Your task to perform on an android device: open app "TextNow: Call + Text Unlimited" (install if not already installed) and enter user name: "stoke@yahoo.com" and password: "prompted" Image 0: 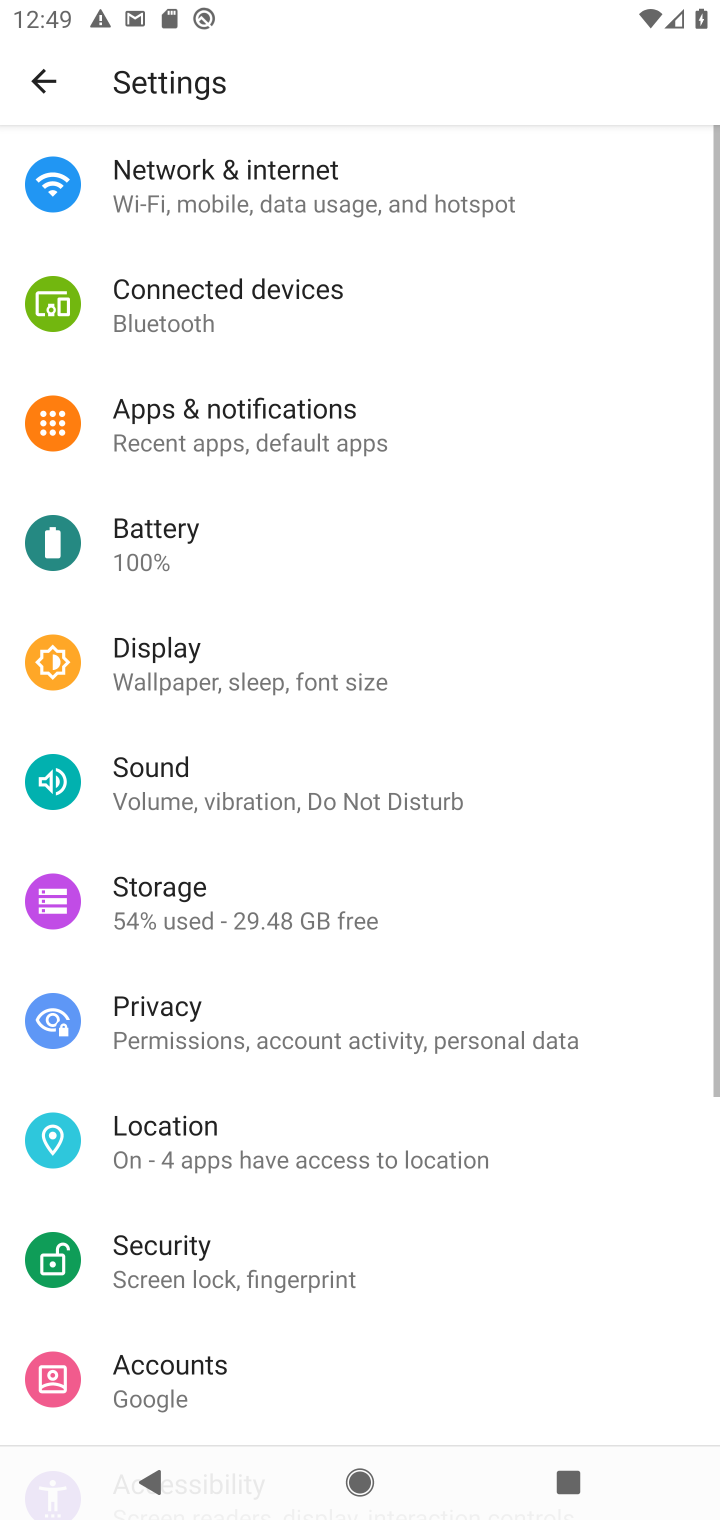
Step 0: press home button
Your task to perform on an android device: open app "TextNow: Call + Text Unlimited" (install if not already installed) and enter user name: "stoke@yahoo.com" and password: "prompted" Image 1: 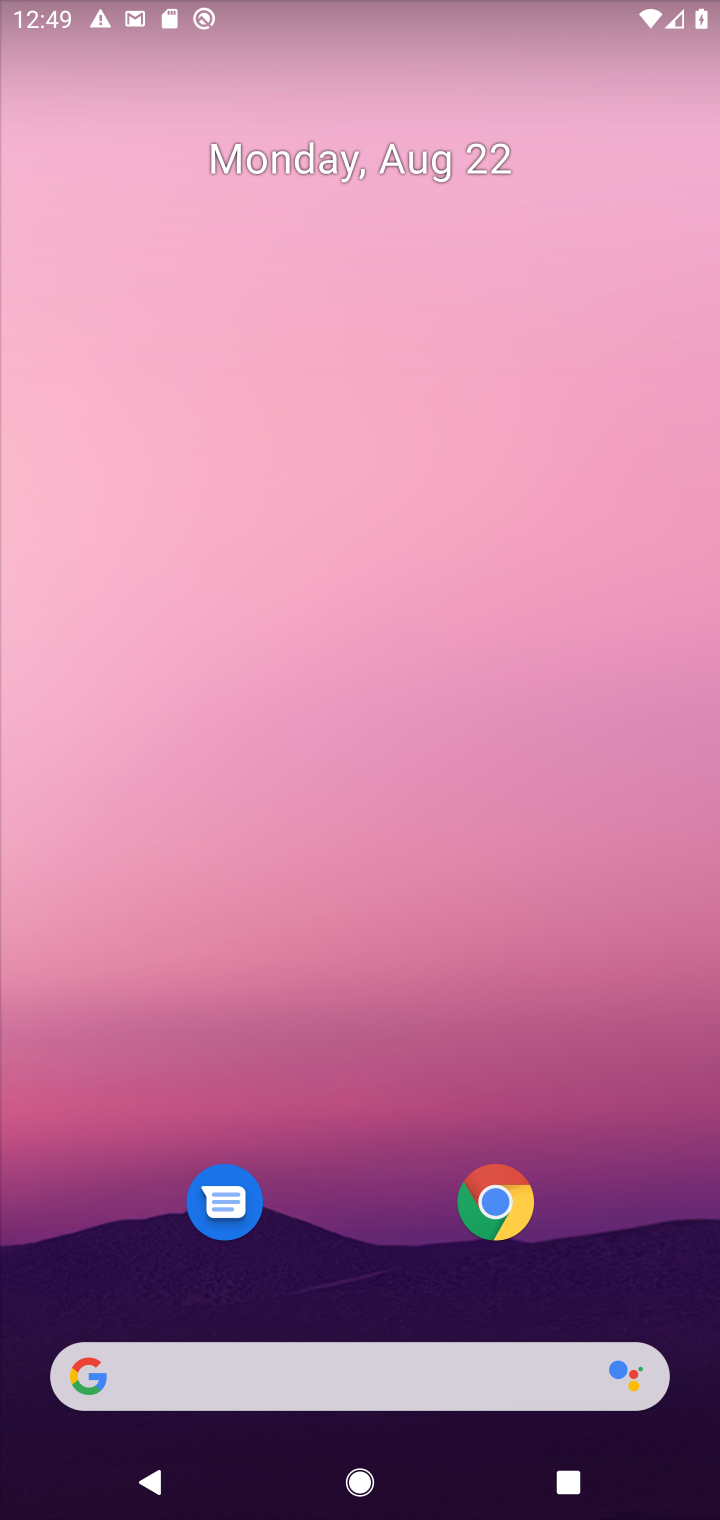
Step 1: drag from (366, 1188) to (385, 170)
Your task to perform on an android device: open app "TextNow: Call + Text Unlimited" (install if not already installed) and enter user name: "stoke@yahoo.com" and password: "prompted" Image 2: 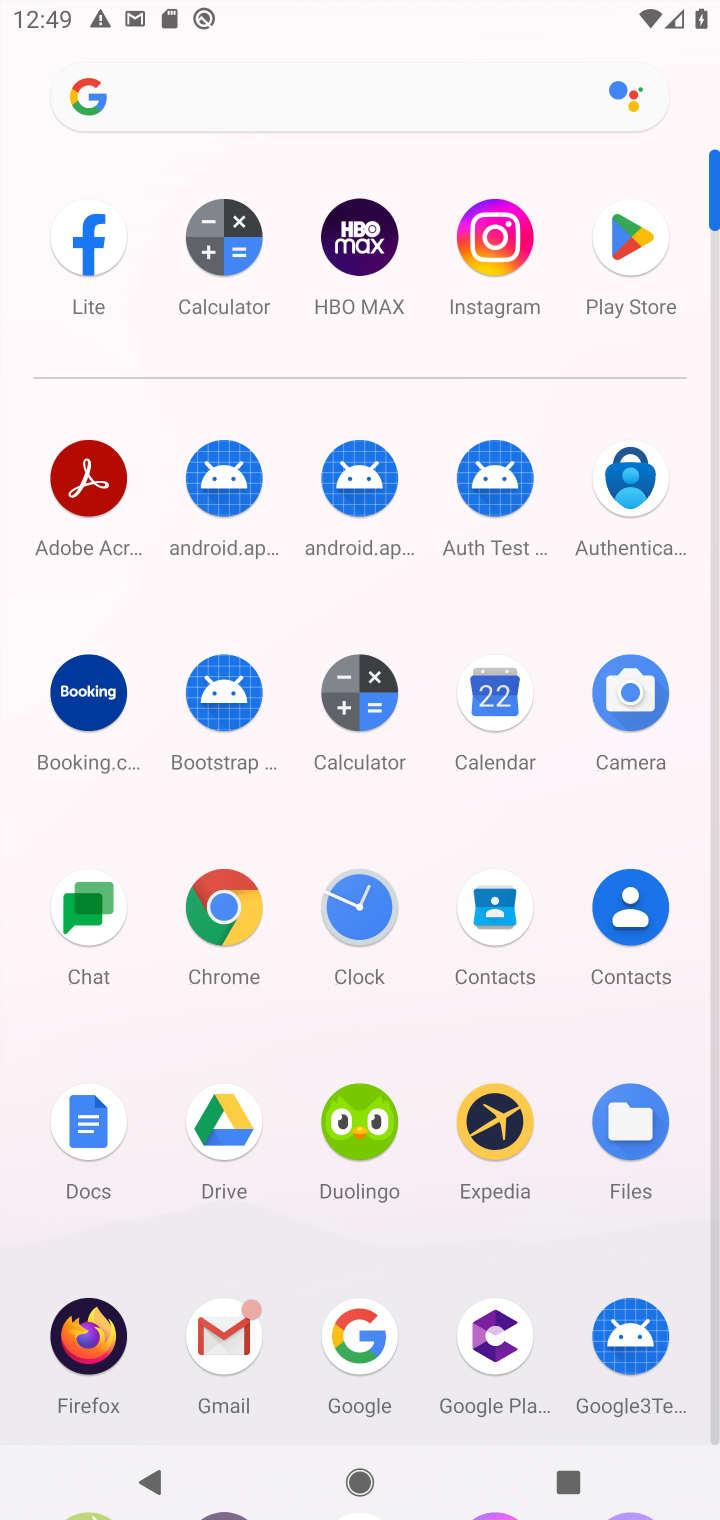
Step 2: click (638, 240)
Your task to perform on an android device: open app "TextNow: Call + Text Unlimited" (install if not already installed) and enter user name: "stoke@yahoo.com" and password: "prompted" Image 3: 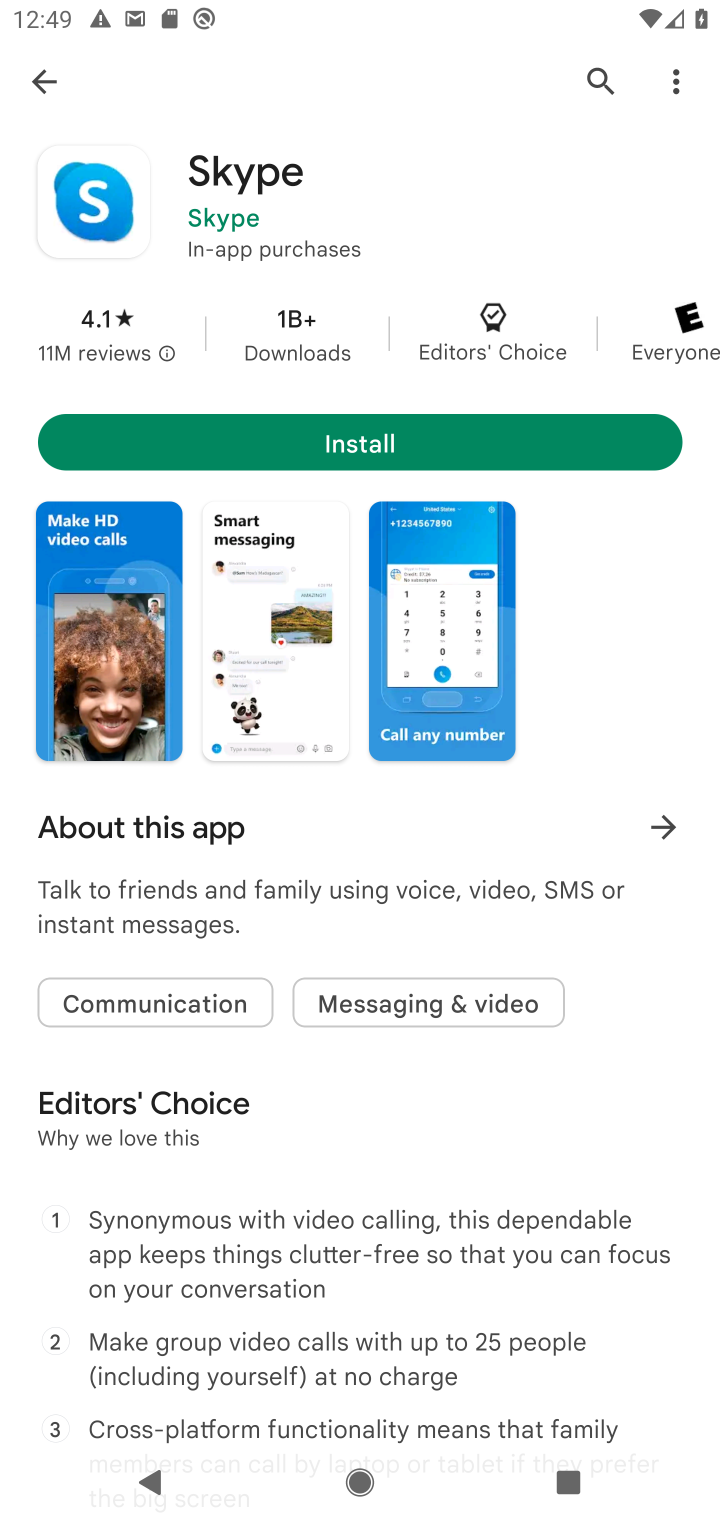
Step 3: click (593, 72)
Your task to perform on an android device: open app "TextNow: Call + Text Unlimited" (install if not already installed) and enter user name: "stoke@yahoo.com" and password: "prompted" Image 4: 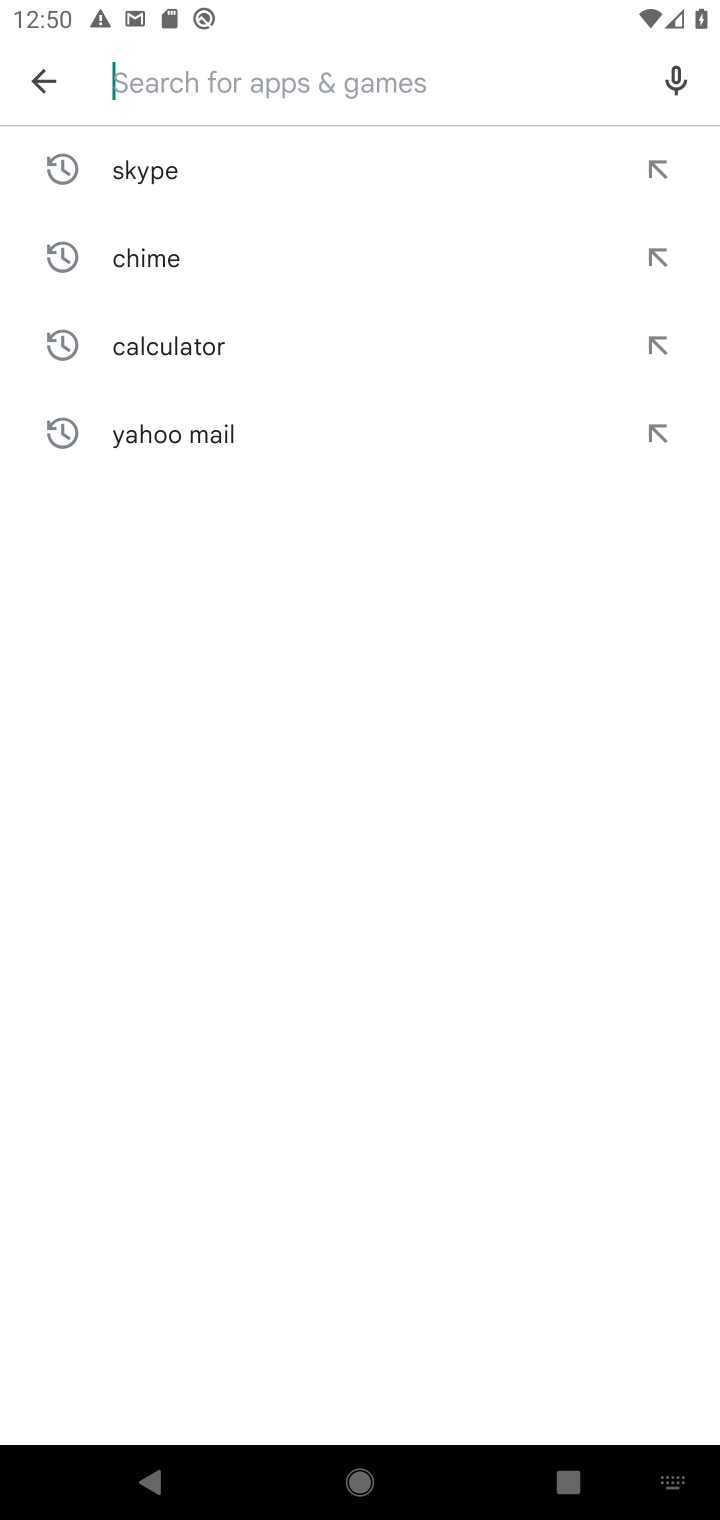
Step 4: type "TextNow: Call + Text Unlimited"
Your task to perform on an android device: open app "TextNow: Call + Text Unlimited" (install if not already installed) and enter user name: "stoke@yahoo.com" and password: "prompted" Image 5: 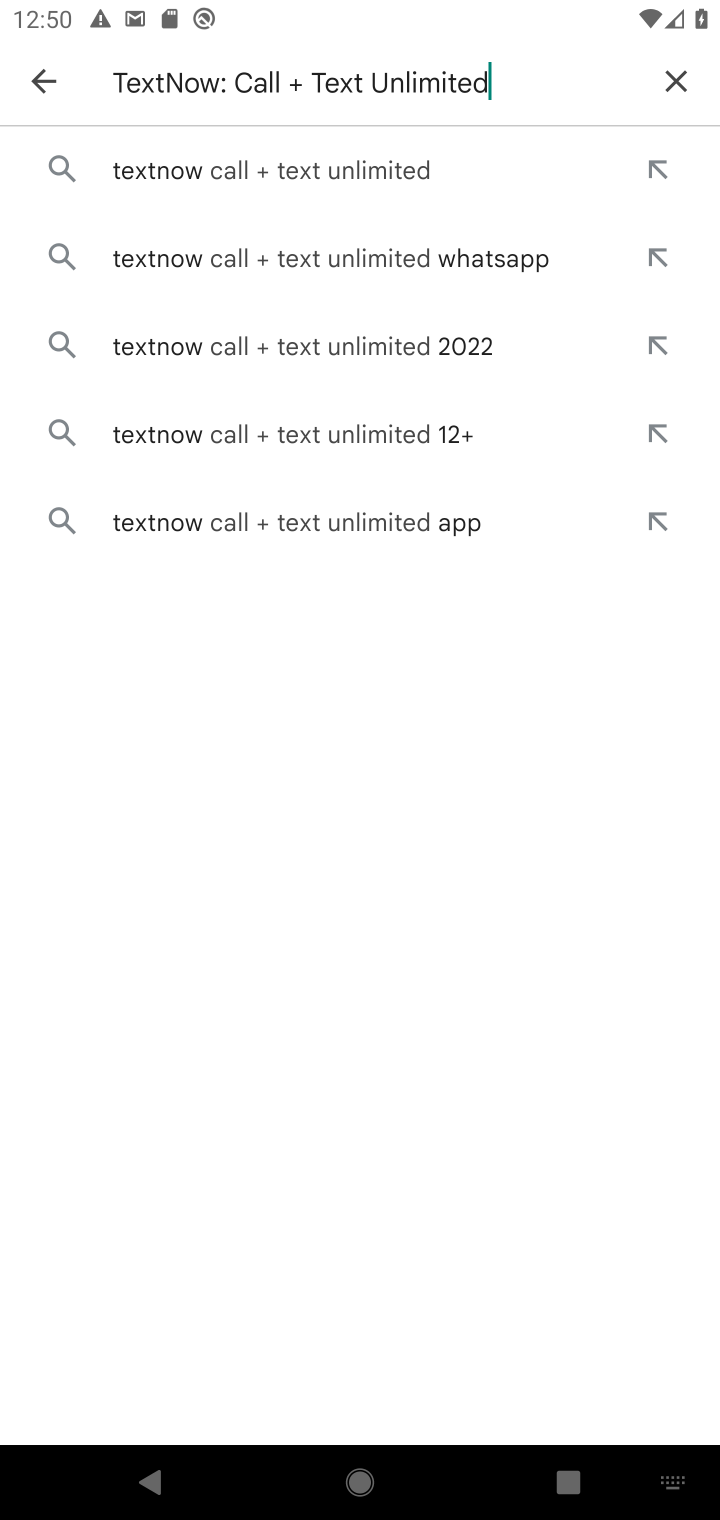
Step 5: click (223, 168)
Your task to perform on an android device: open app "TextNow: Call + Text Unlimited" (install if not already installed) and enter user name: "stoke@yahoo.com" and password: "prompted" Image 6: 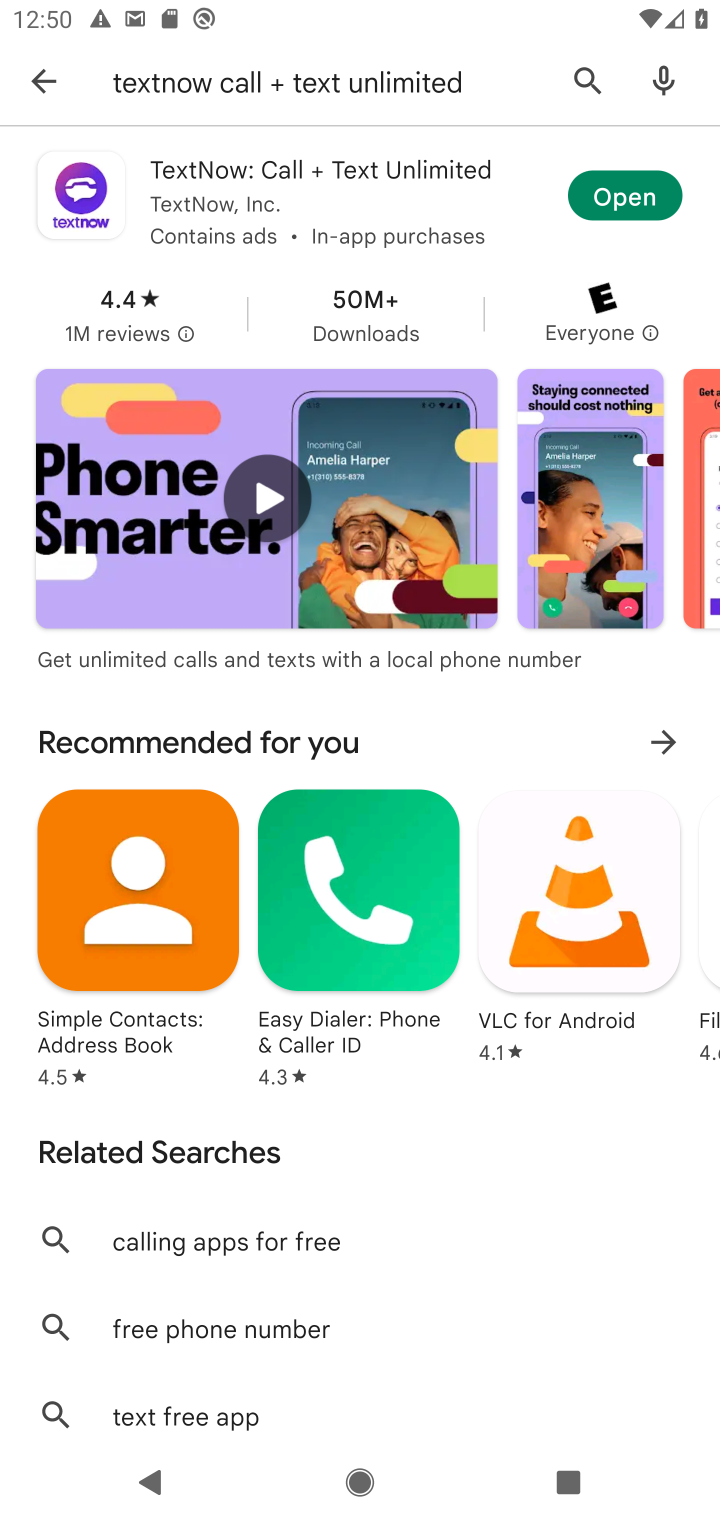
Step 6: click (642, 197)
Your task to perform on an android device: open app "TextNow: Call + Text Unlimited" (install if not already installed) and enter user name: "stoke@yahoo.com" and password: "prompted" Image 7: 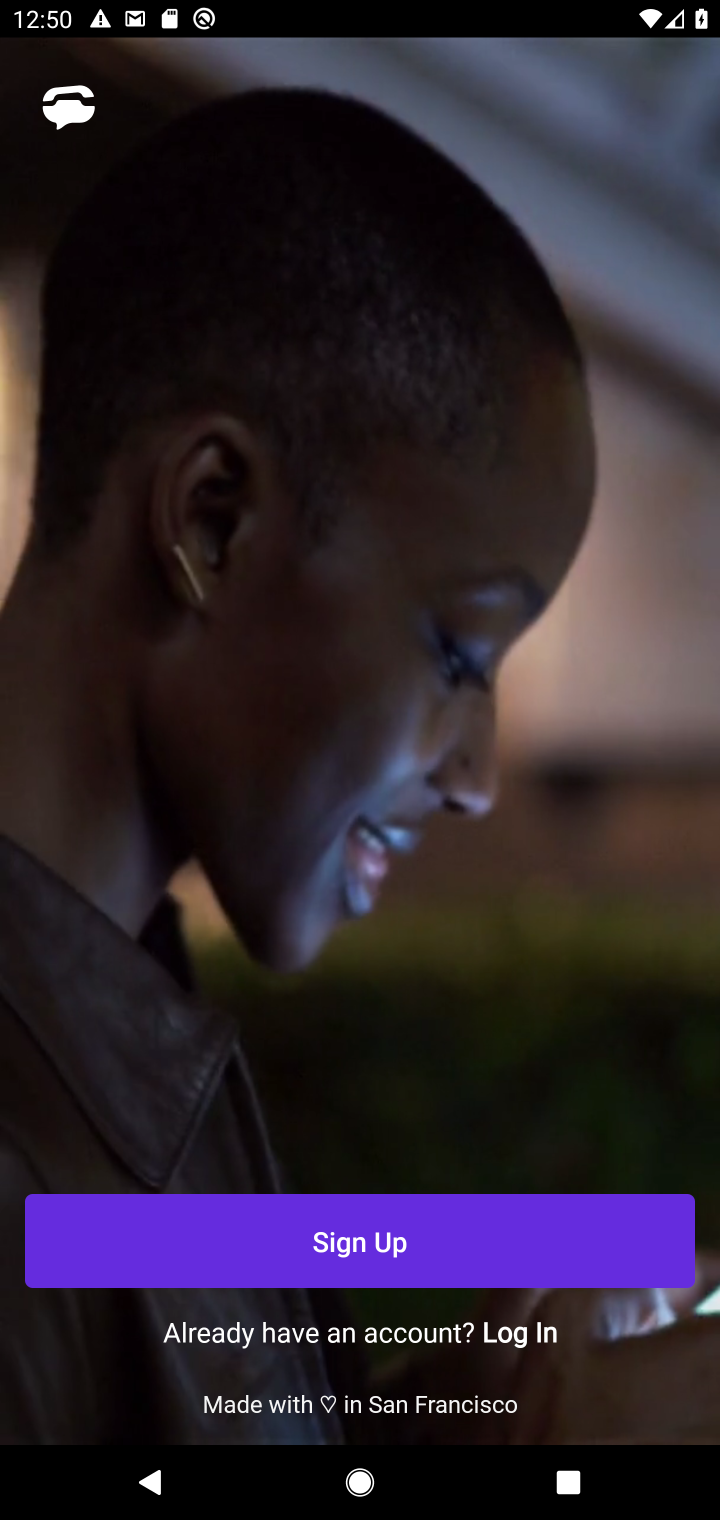
Step 7: click (382, 1236)
Your task to perform on an android device: open app "TextNow: Call + Text Unlimited" (install if not already installed) and enter user name: "stoke@yahoo.com" and password: "prompted" Image 8: 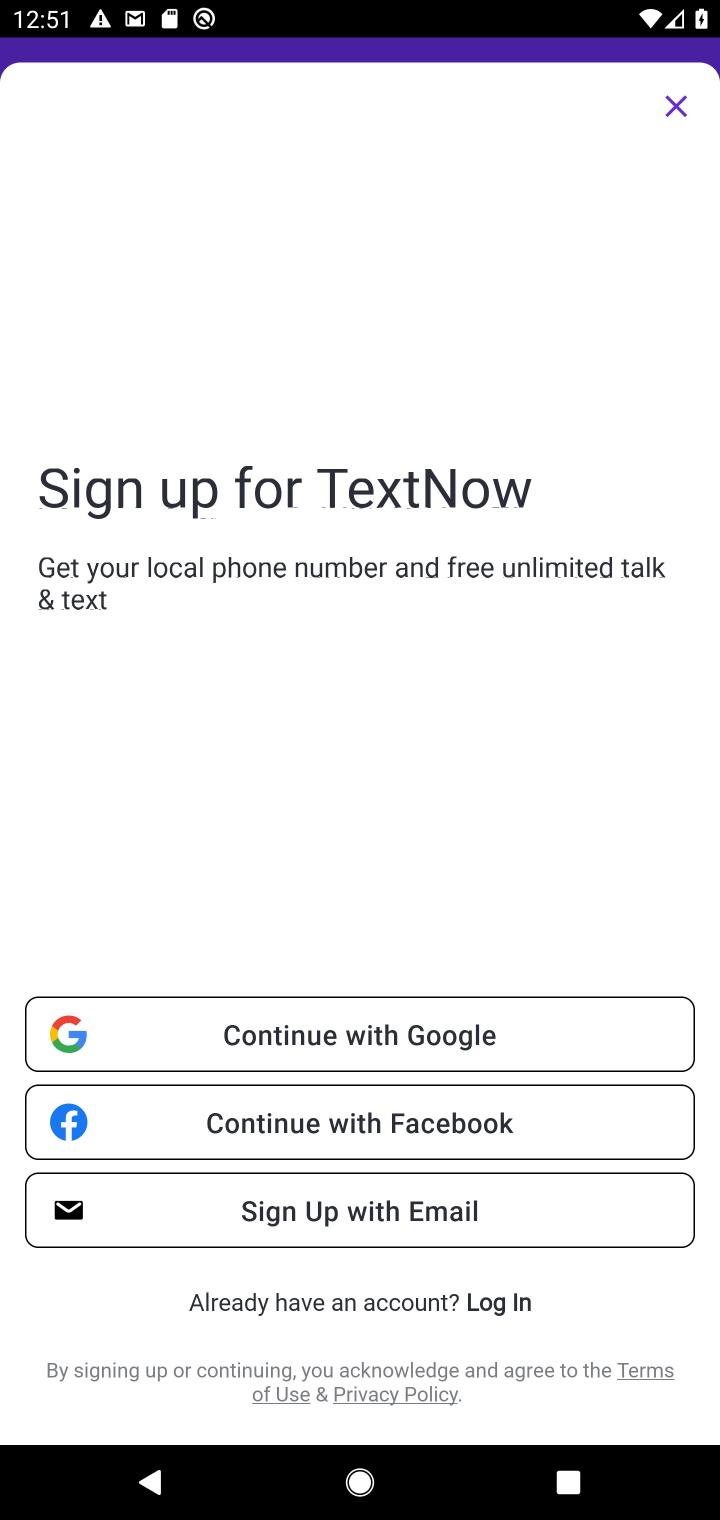
Step 8: click (450, 1043)
Your task to perform on an android device: open app "TextNow: Call + Text Unlimited" (install if not already installed) and enter user name: "stoke@yahoo.com" and password: "prompted" Image 9: 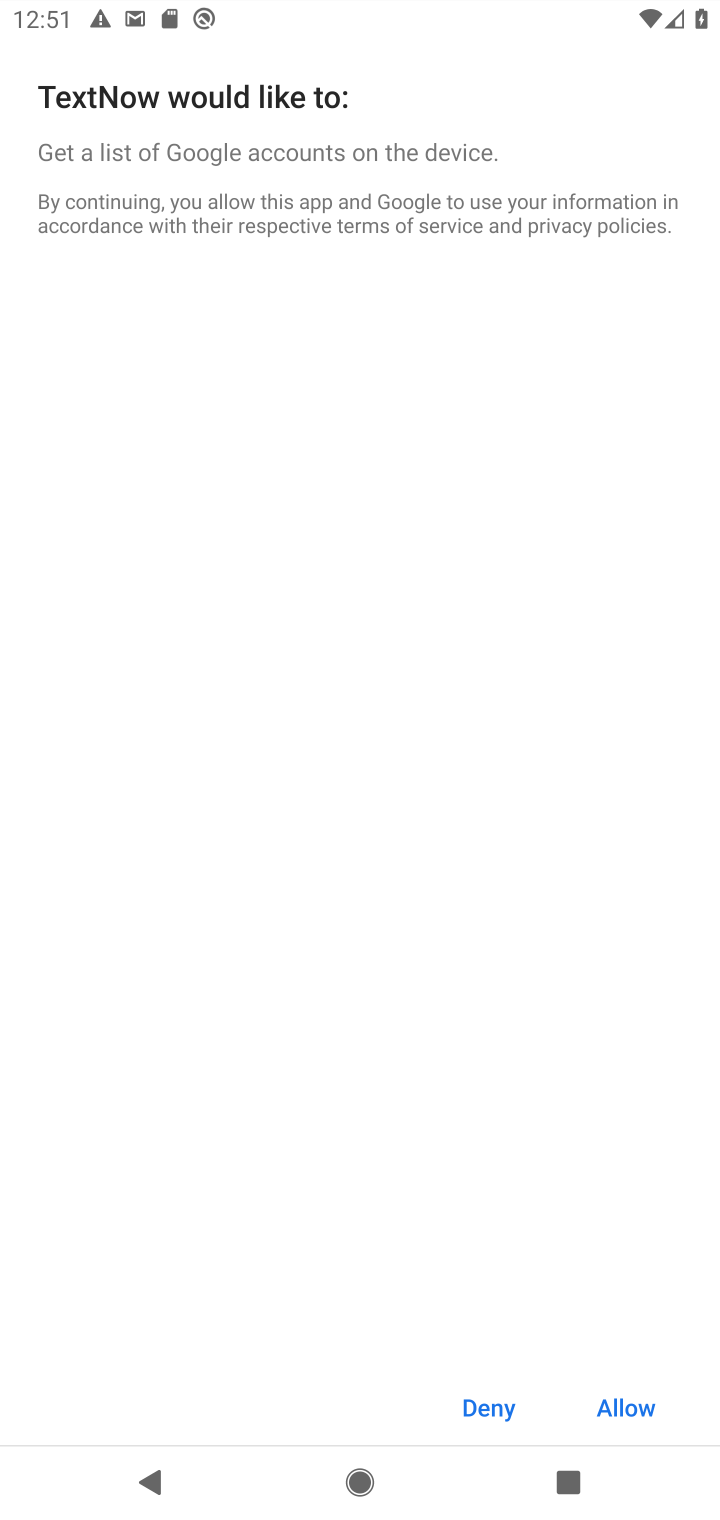
Step 9: click (618, 1407)
Your task to perform on an android device: open app "TextNow: Call + Text Unlimited" (install if not already installed) and enter user name: "stoke@yahoo.com" and password: "prompted" Image 10: 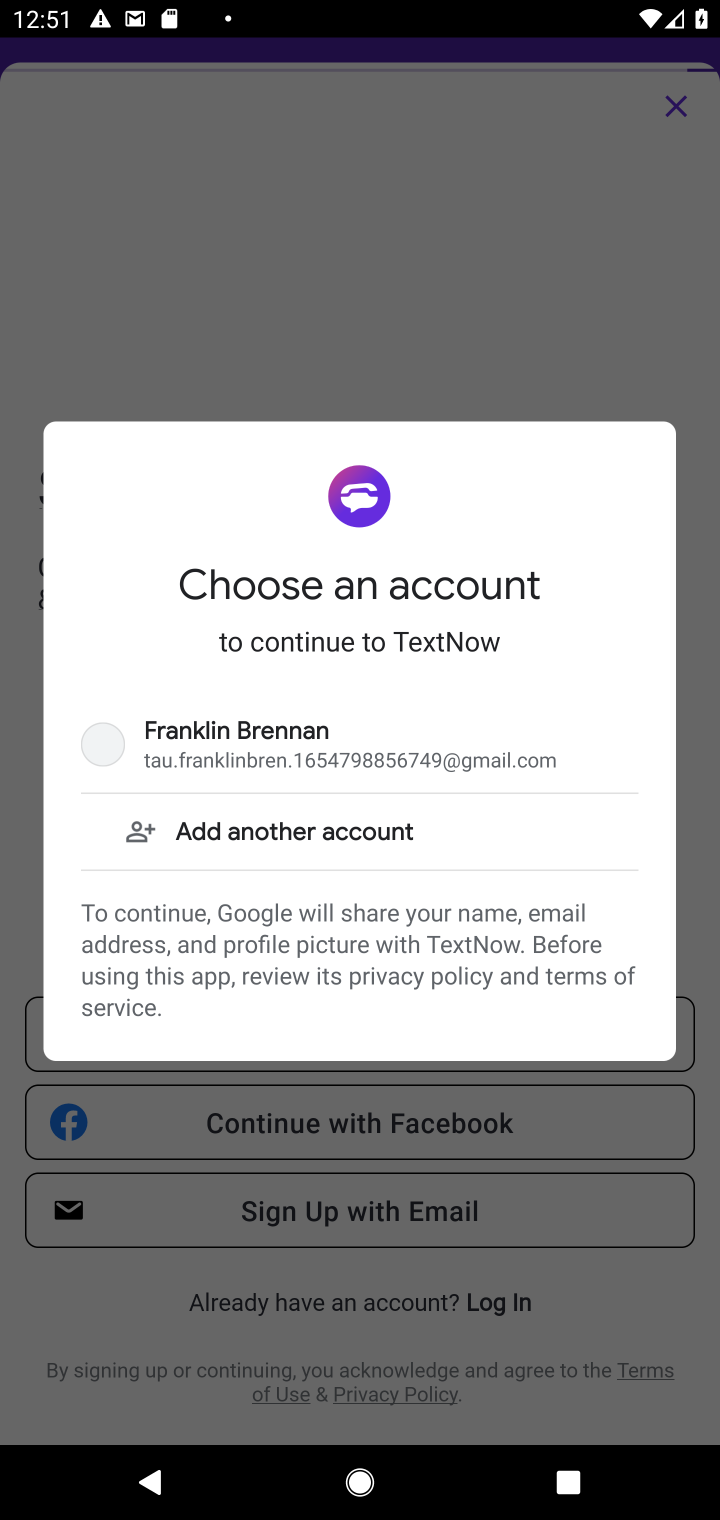
Step 10: click (287, 823)
Your task to perform on an android device: open app "TextNow: Call + Text Unlimited" (install if not already installed) and enter user name: "stoke@yahoo.com" and password: "prompted" Image 11: 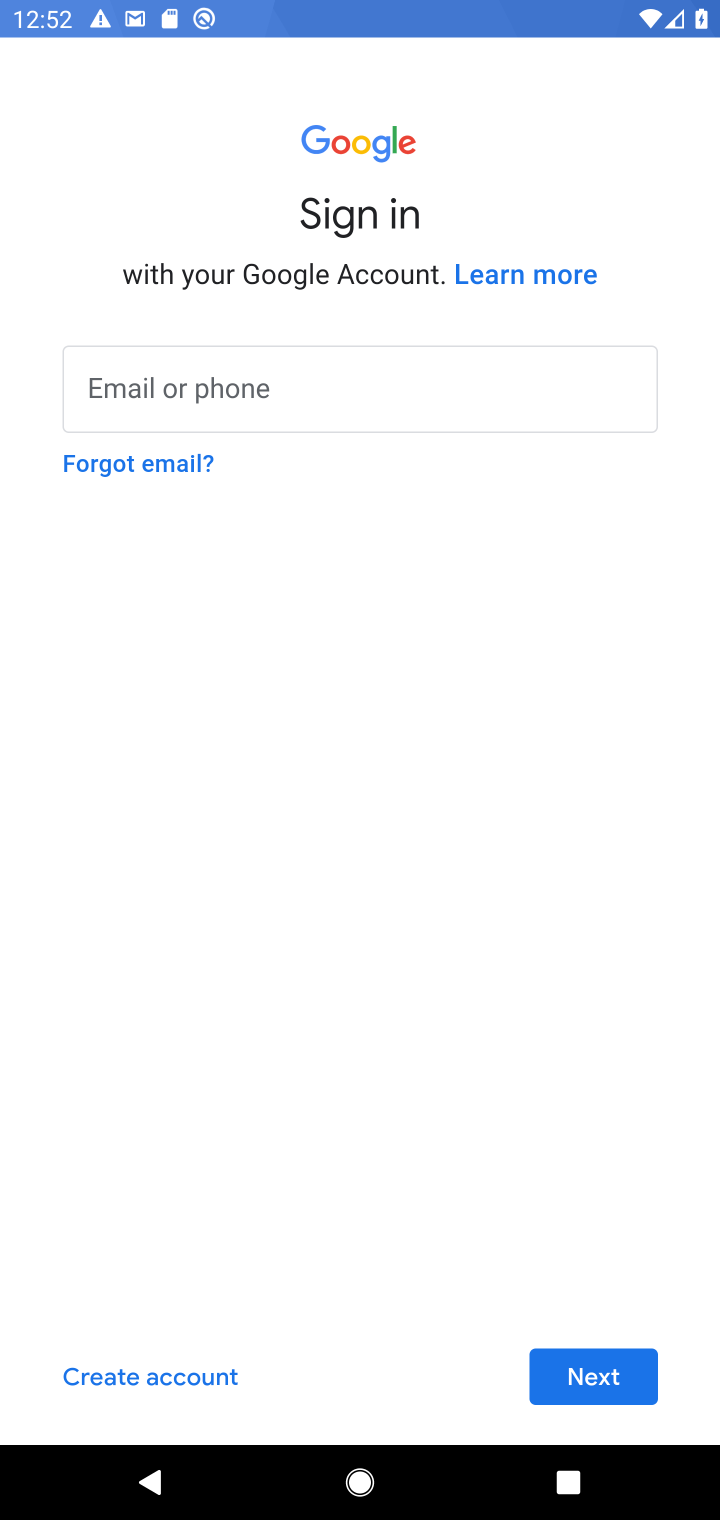
Step 11: click (263, 388)
Your task to perform on an android device: open app "TextNow: Call + Text Unlimited" (install if not already installed) and enter user name: "stoke@yahoo.com" and password: "prompted" Image 12: 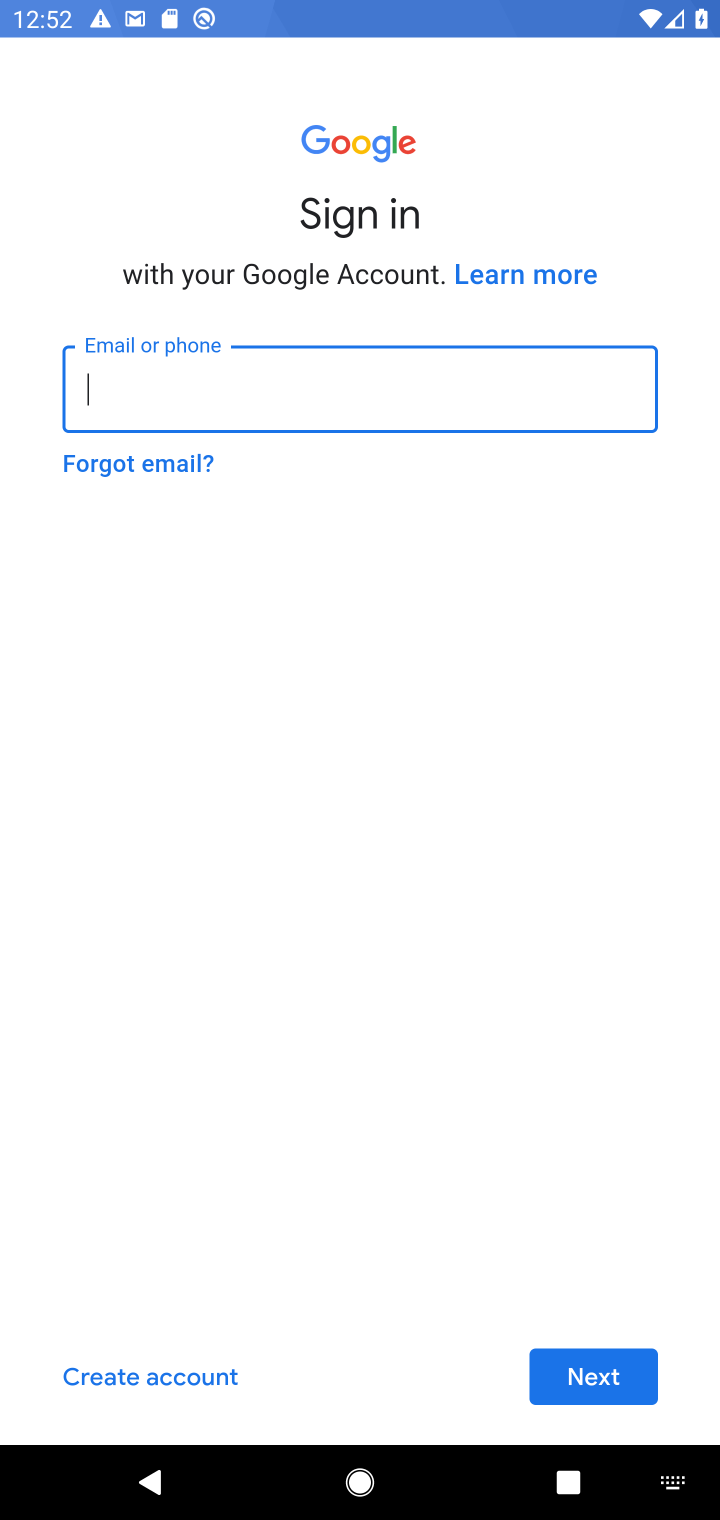
Step 12: type "stoke@yahoo.com"
Your task to perform on an android device: open app "TextNow: Call + Text Unlimited" (install if not already installed) and enter user name: "stoke@yahoo.com" and password: "prompted" Image 13: 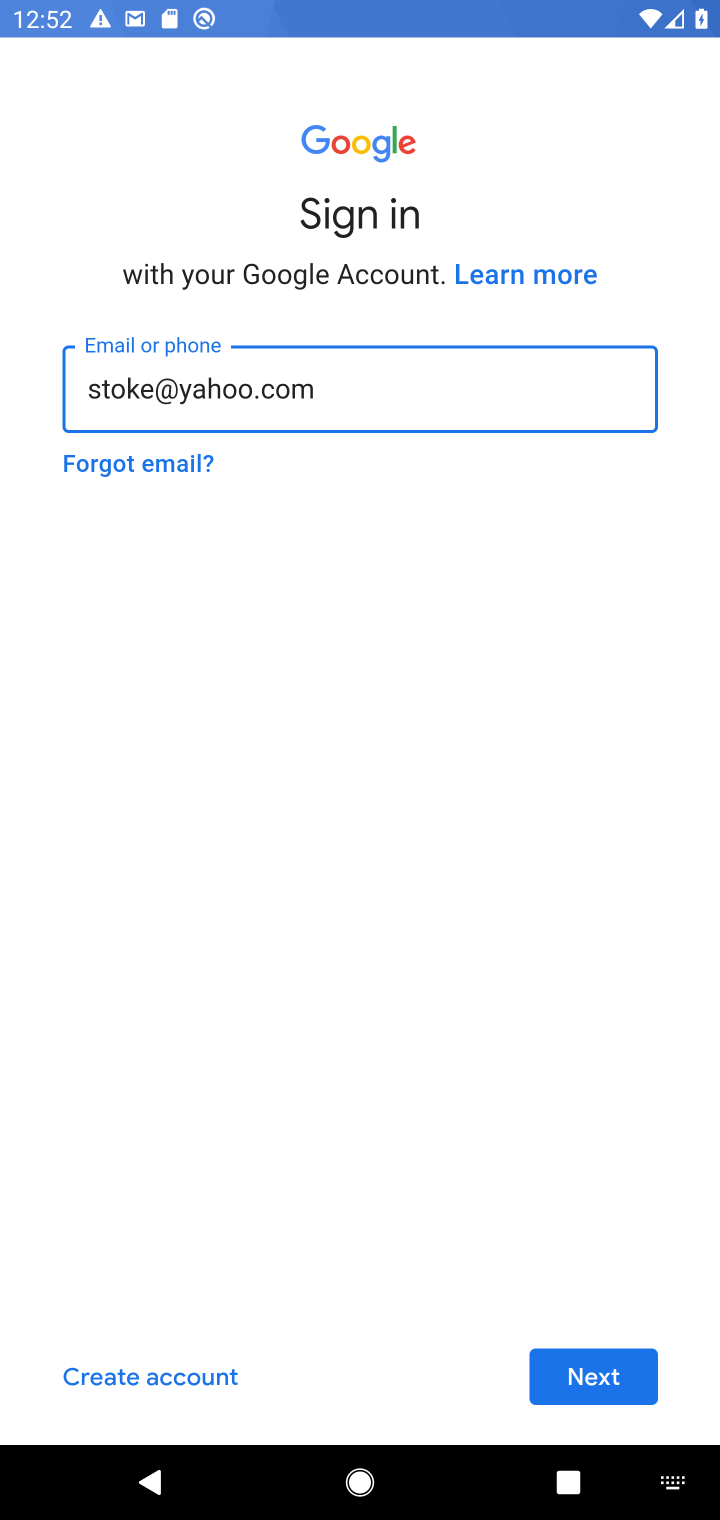
Step 13: click (628, 1378)
Your task to perform on an android device: open app "TextNow: Call + Text Unlimited" (install if not already installed) and enter user name: "stoke@yahoo.com" and password: "prompted" Image 14: 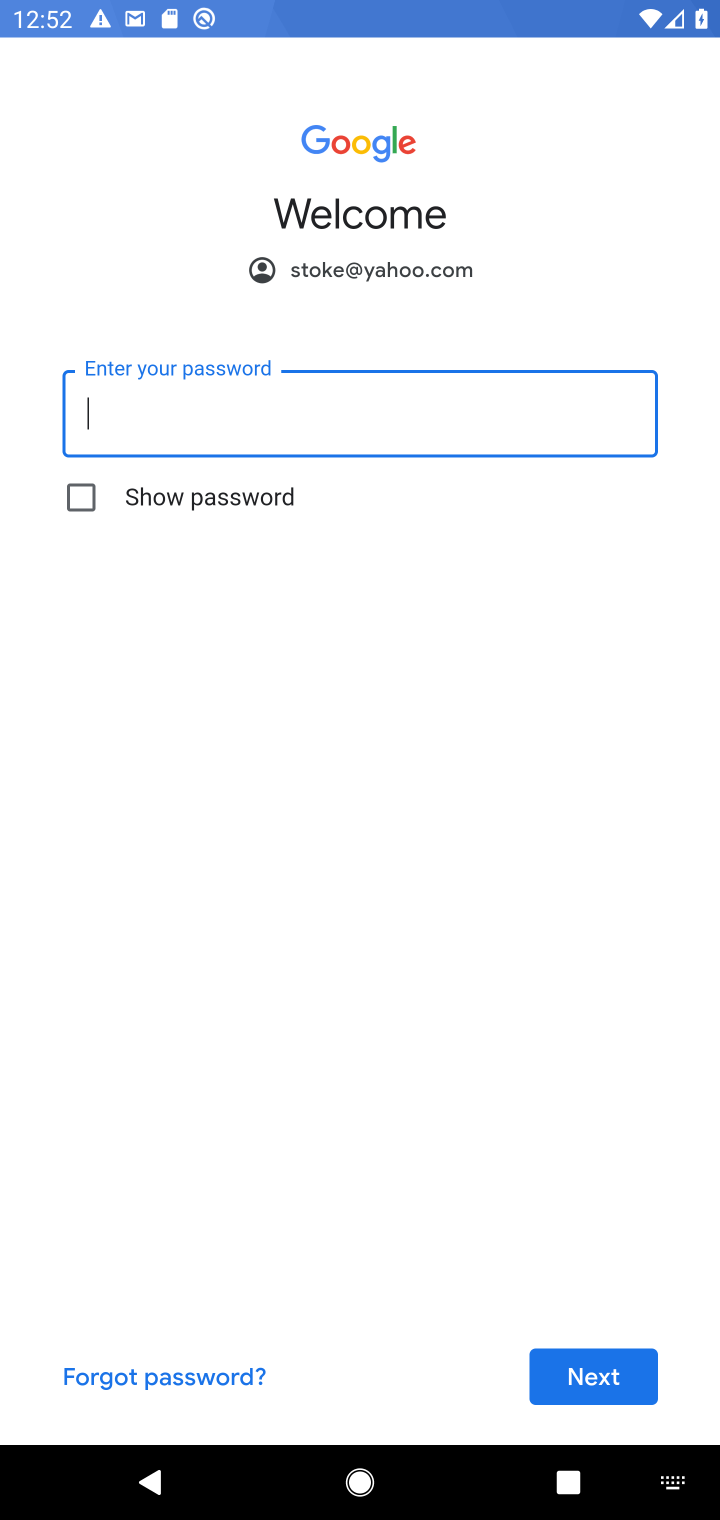
Step 14: type "prompted"
Your task to perform on an android device: open app "TextNow: Call + Text Unlimited" (install if not already installed) and enter user name: "stoke@yahoo.com" and password: "prompted" Image 15: 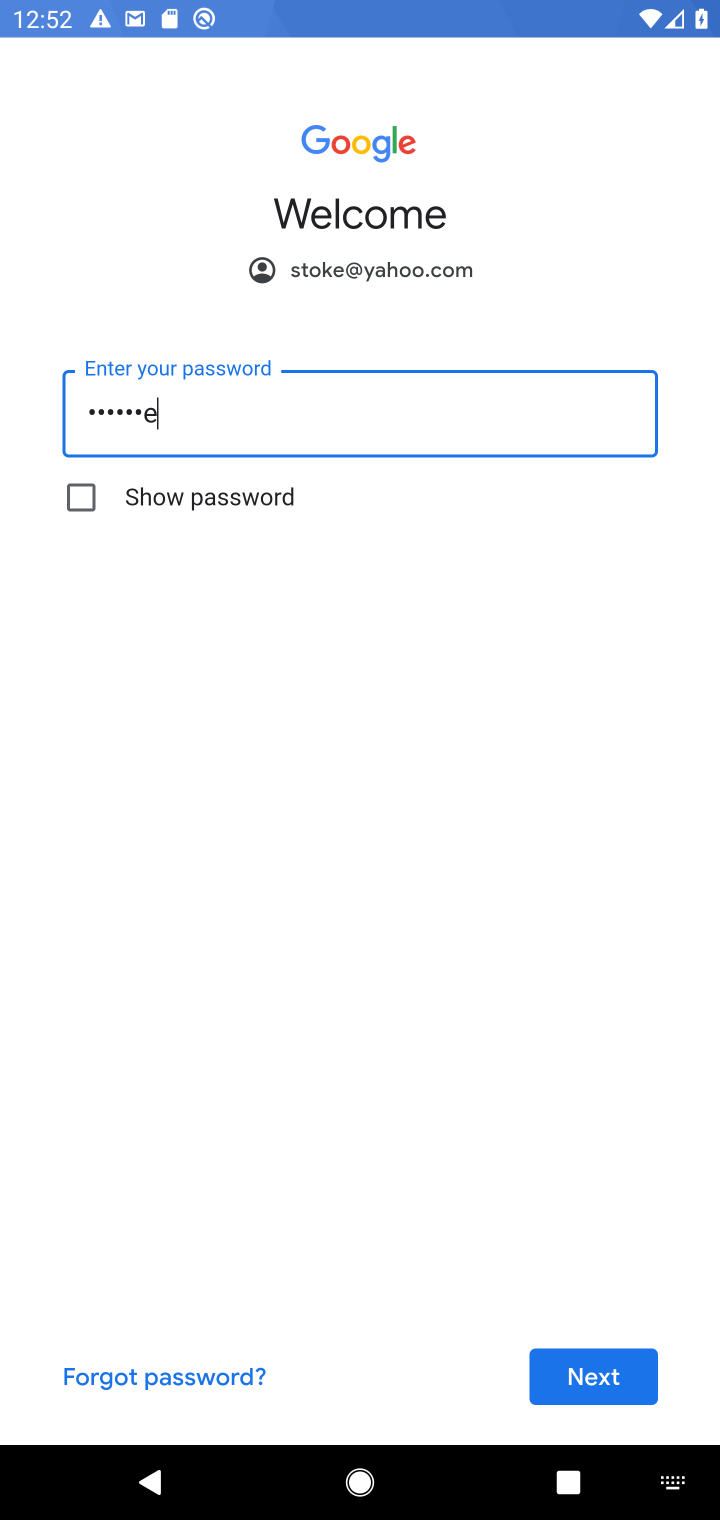
Step 15: type ""
Your task to perform on an android device: open app "TextNow: Call + Text Unlimited" (install if not already installed) and enter user name: "stoke@yahoo.com" and password: "prompted" Image 16: 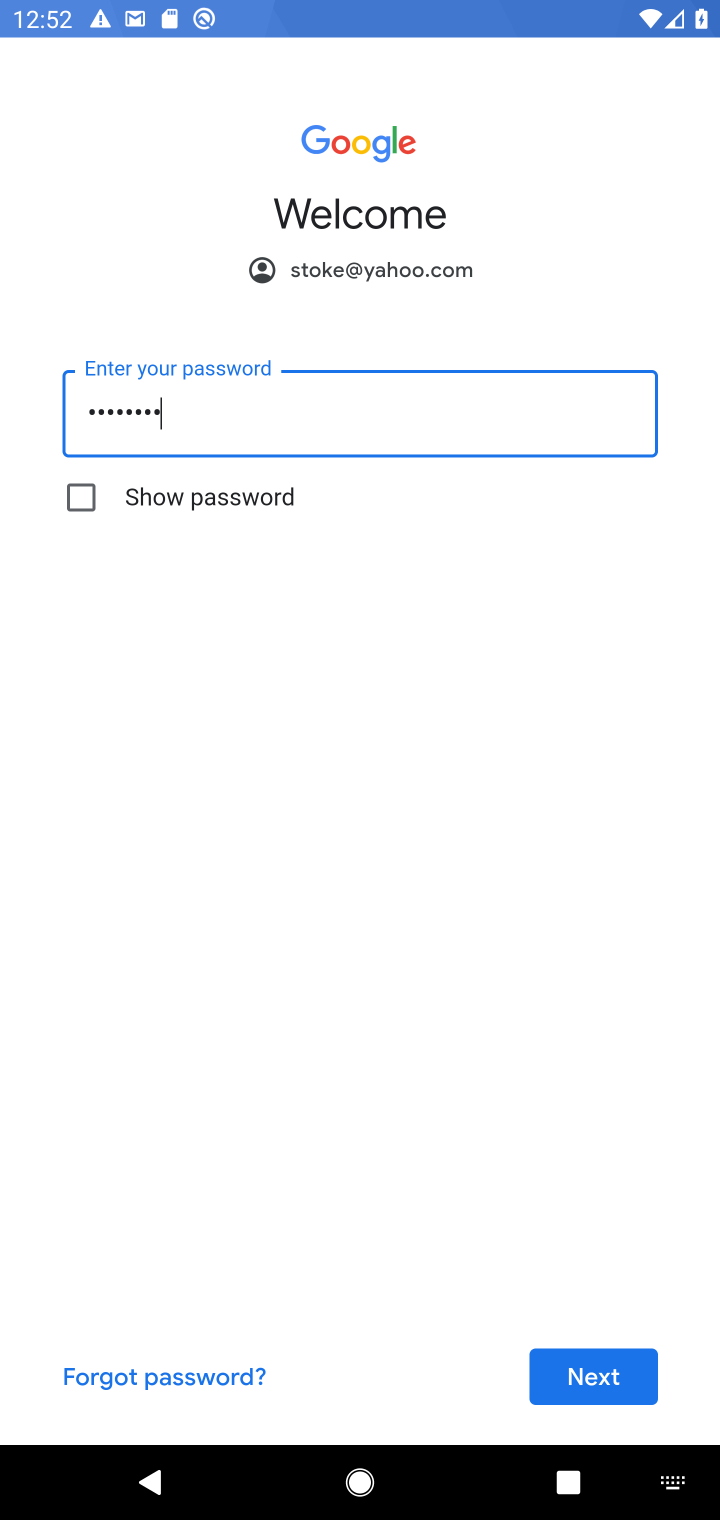
Step 16: task complete